Your task to perform on an android device: Open maps Image 0: 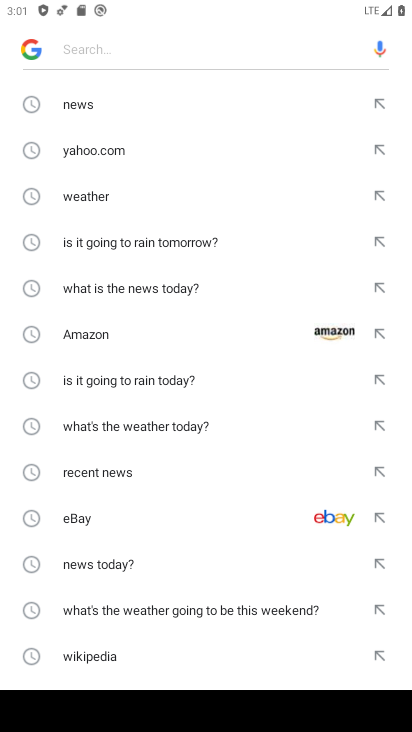
Step 0: press home button
Your task to perform on an android device: Open maps Image 1: 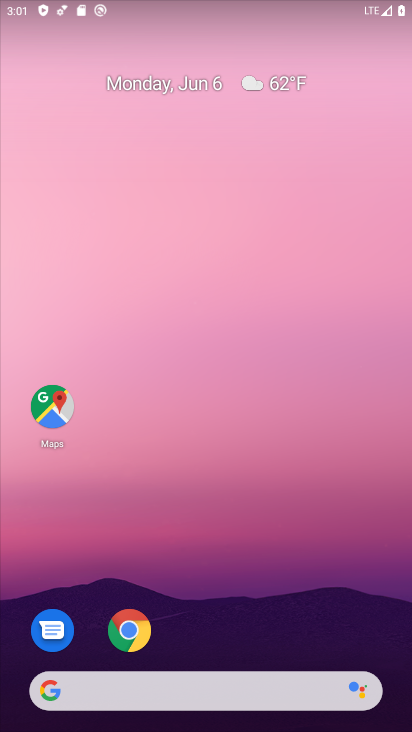
Step 1: click (38, 391)
Your task to perform on an android device: Open maps Image 2: 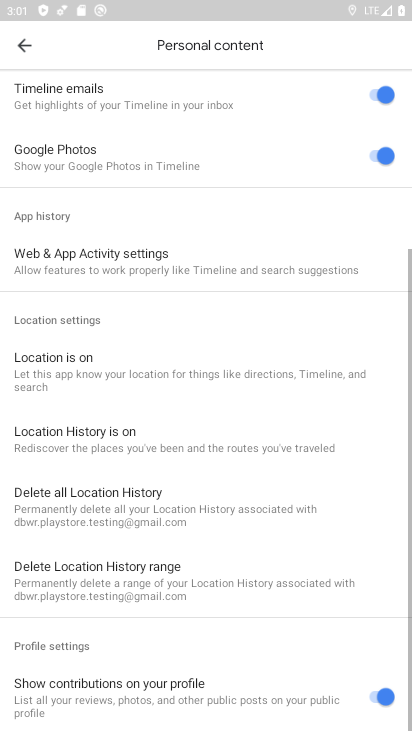
Step 2: task complete